Your task to perform on an android device: Open CNN.com Image 0: 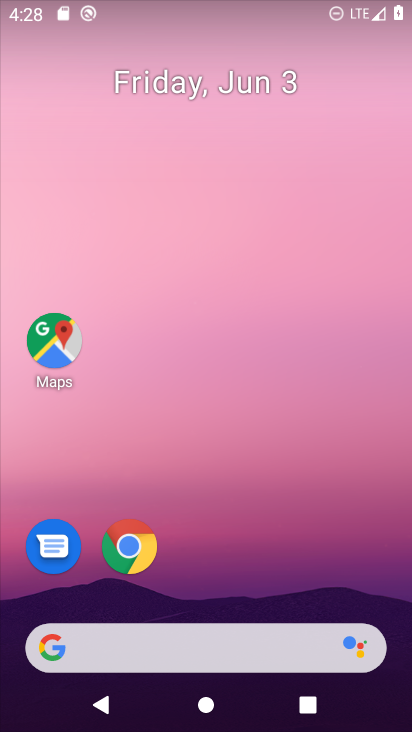
Step 0: click (215, 645)
Your task to perform on an android device: Open CNN.com Image 1: 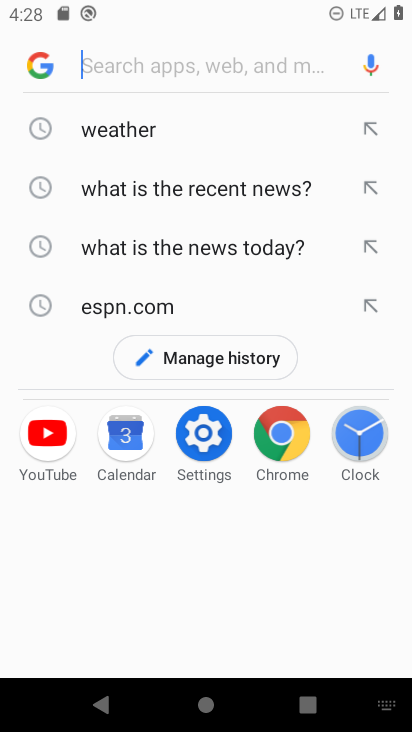
Step 1: type "cnn.com"
Your task to perform on an android device: Open CNN.com Image 2: 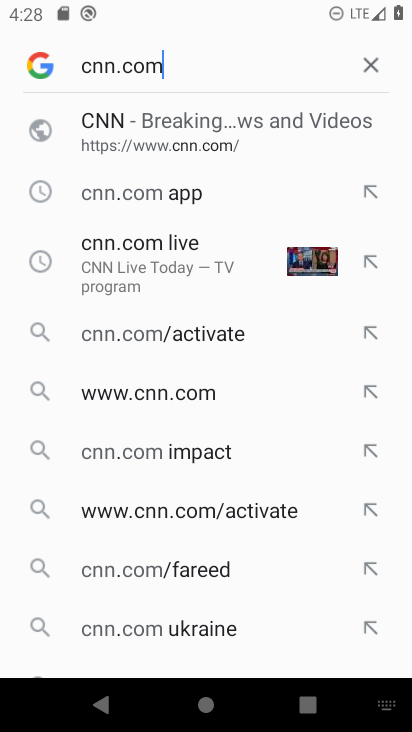
Step 2: click (141, 136)
Your task to perform on an android device: Open CNN.com Image 3: 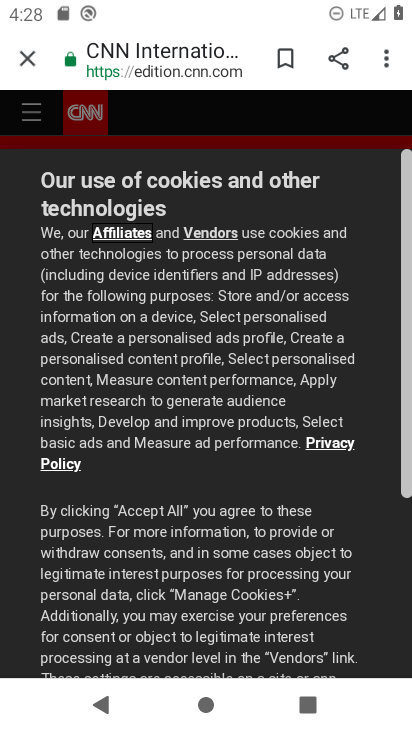
Step 3: task complete